Your task to perform on an android device: Open Google Chrome and click the shortcut for Amazon.com Image 0: 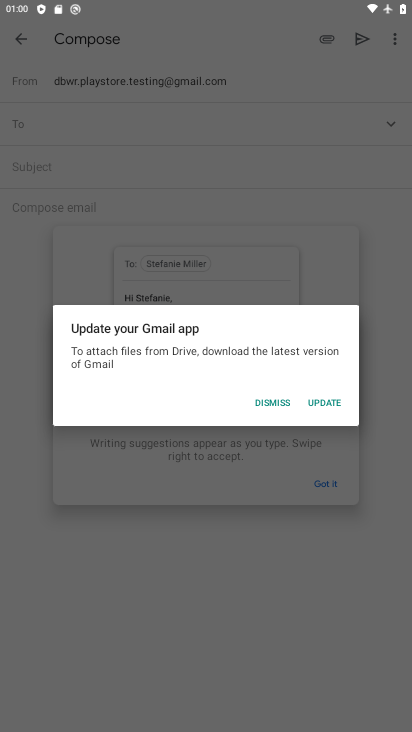
Step 0: press home button
Your task to perform on an android device: Open Google Chrome and click the shortcut for Amazon.com Image 1: 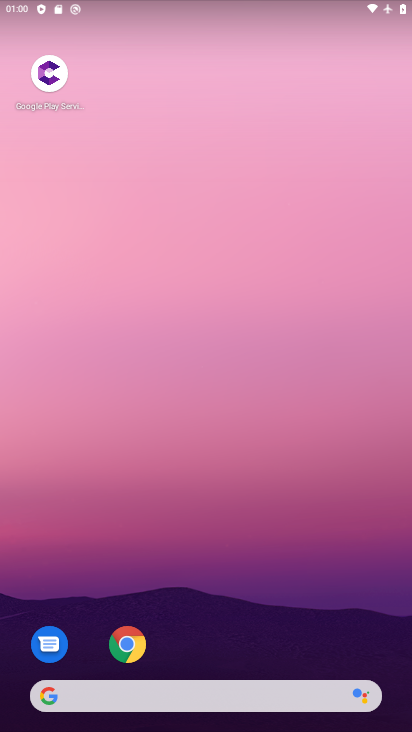
Step 1: click (122, 660)
Your task to perform on an android device: Open Google Chrome and click the shortcut for Amazon.com Image 2: 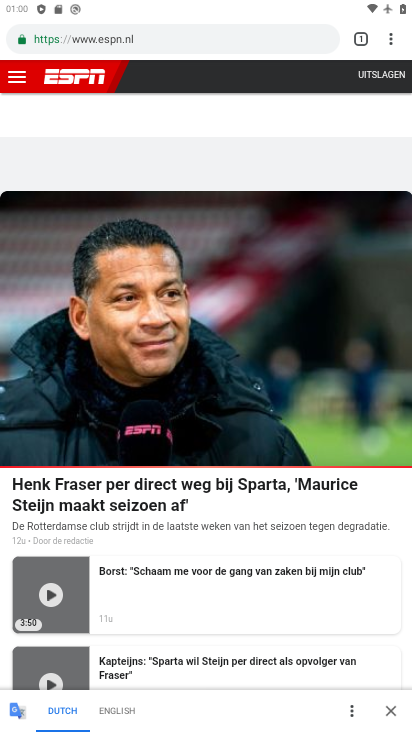
Step 2: click (355, 38)
Your task to perform on an android device: Open Google Chrome and click the shortcut for Amazon.com Image 3: 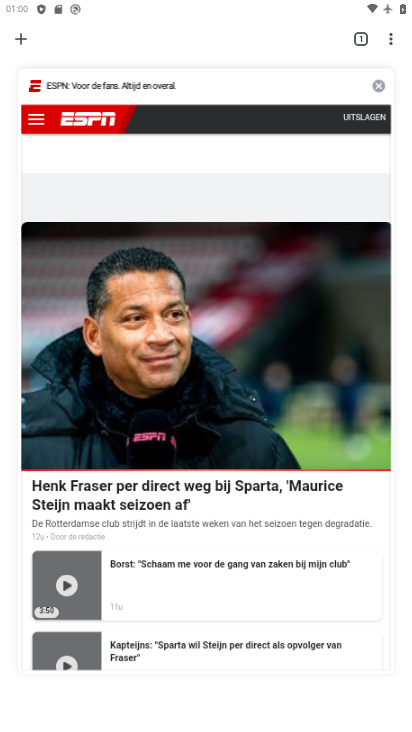
Step 3: click (29, 39)
Your task to perform on an android device: Open Google Chrome and click the shortcut for Amazon.com Image 4: 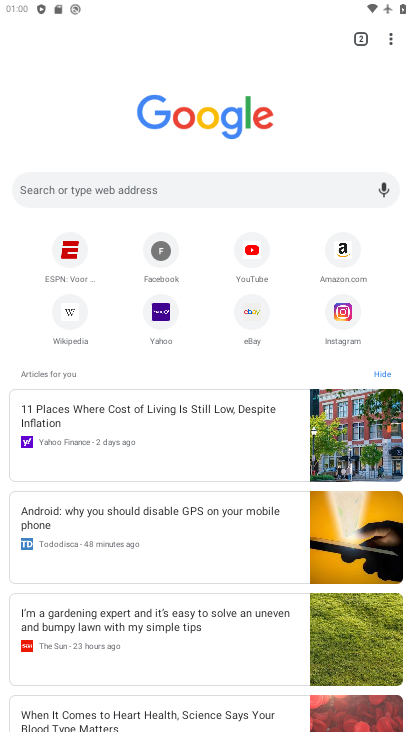
Step 4: click (340, 264)
Your task to perform on an android device: Open Google Chrome and click the shortcut for Amazon.com Image 5: 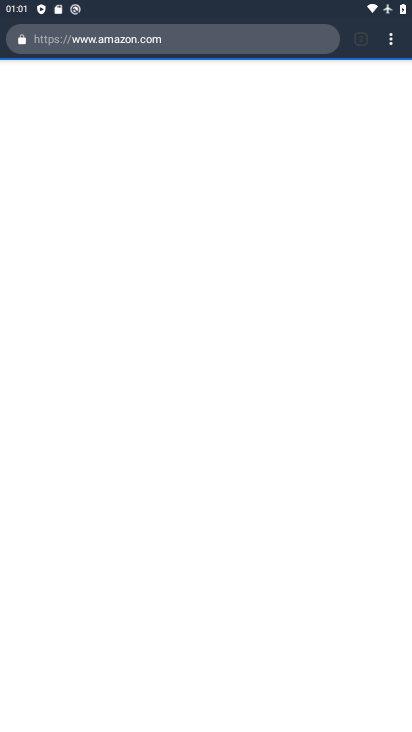
Step 5: task complete